Your task to perform on an android device: turn on bluetooth scan Image 0: 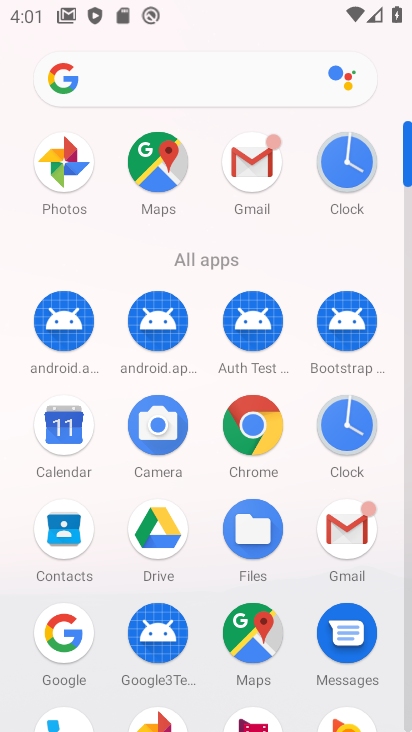
Step 0: drag from (212, 574) to (226, 94)
Your task to perform on an android device: turn on bluetooth scan Image 1: 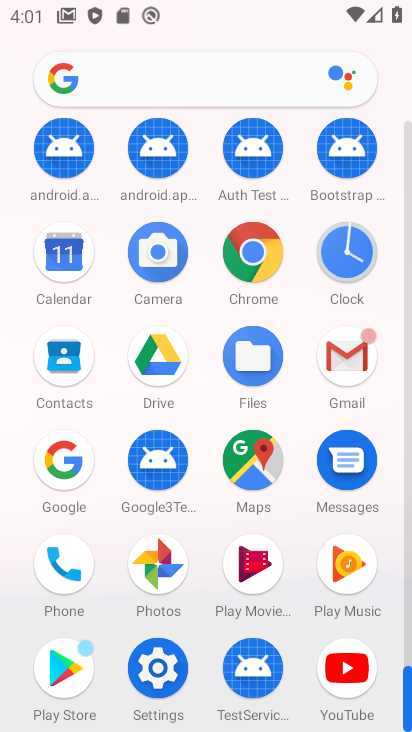
Step 1: click (161, 653)
Your task to perform on an android device: turn on bluetooth scan Image 2: 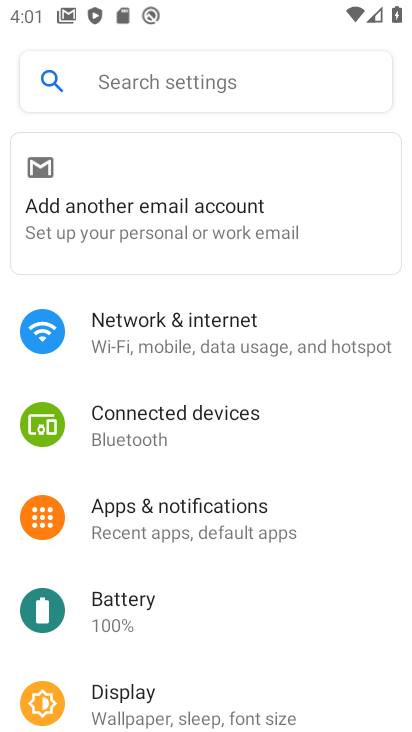
Step 2: drag from (192, 613) to (293, 152)
Your task to perform on an android device: turn on bluetooth scan Image 3: 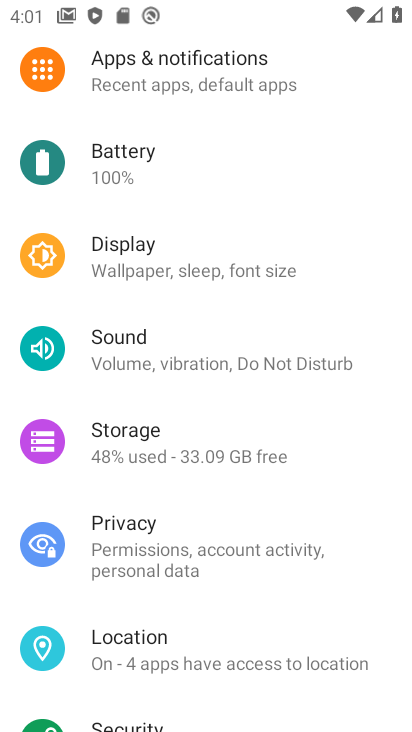
Step 3: click (203, 652)
Your task to perform on an android device: turn on bluetooth scan Image 4: 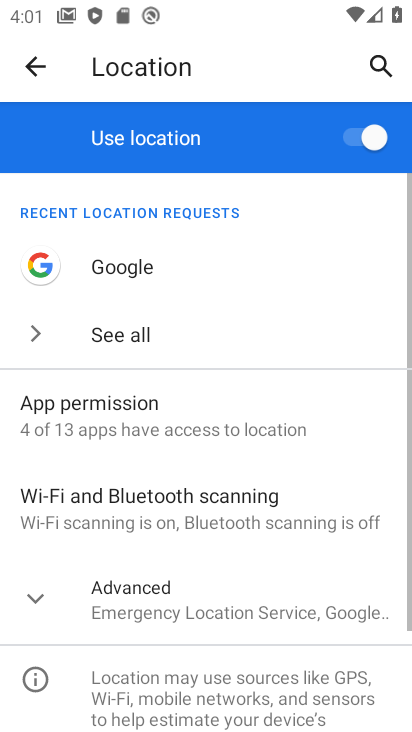
Step 4: click (203, 503)
Your task to perform on an android device: turn on bluetooth scan Image 5: 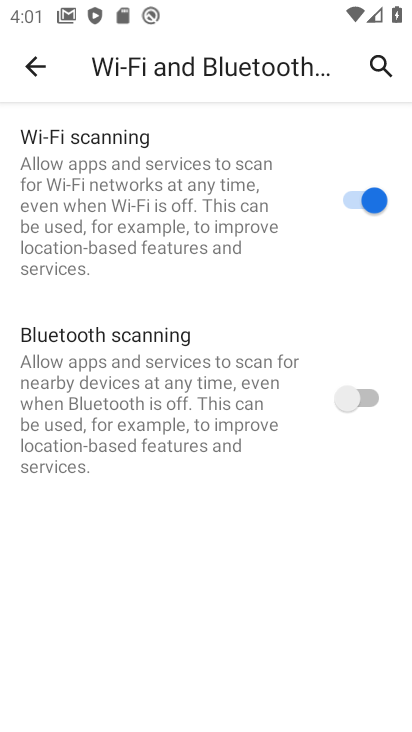
Step 5: click (364, 396)
Your task to perform on an android device: turn on bluetooth scan Image 6: 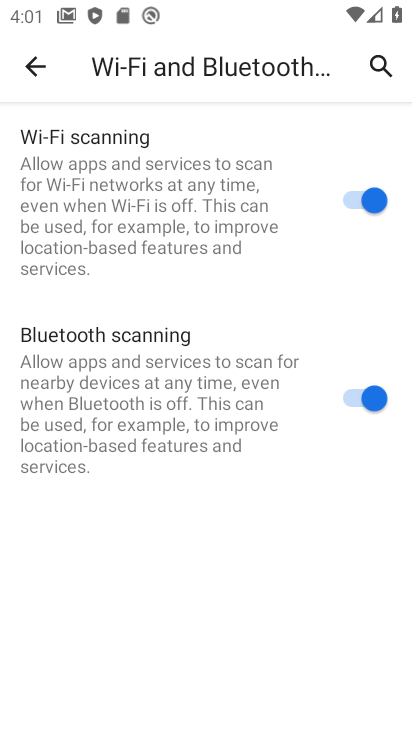
Step 6: task complete